Your task to perform on an android device: change notifications settings Image 0: 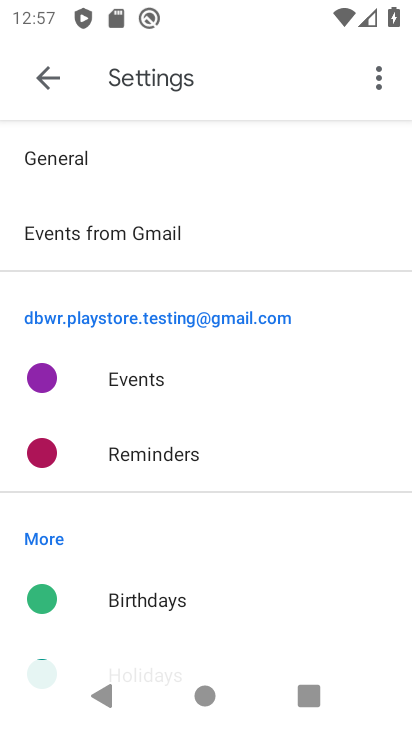
Step 0: press home button
Your task to perform on an android device: change notifications settings Image 1: 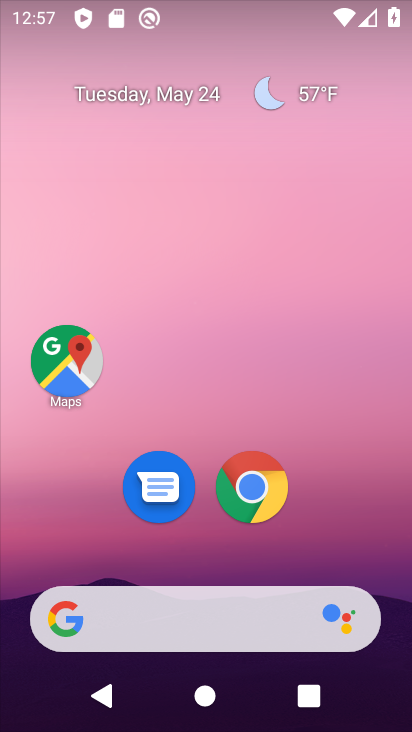
Step 1: drag from (218, 724) to (226, 120)
Your task to perform on an android device: change notifications settings Image 2: 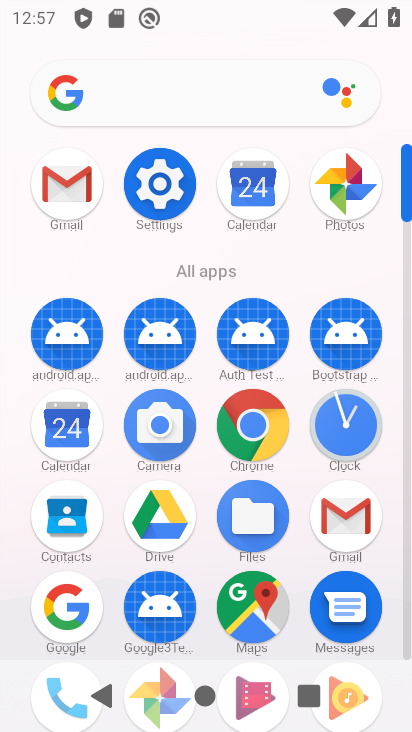
Step 2: click (171, 177)
Your task to perform on an android device: change notifications settings Image 3: 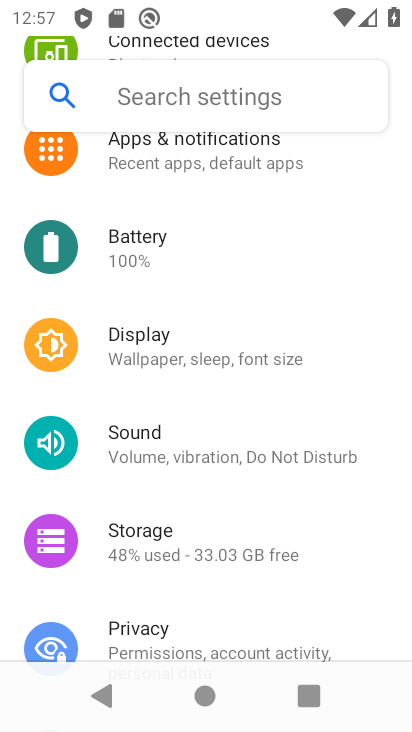
Step 3: click (165, 147)
Your task to perform on an android device: change notifications settings Image 4: 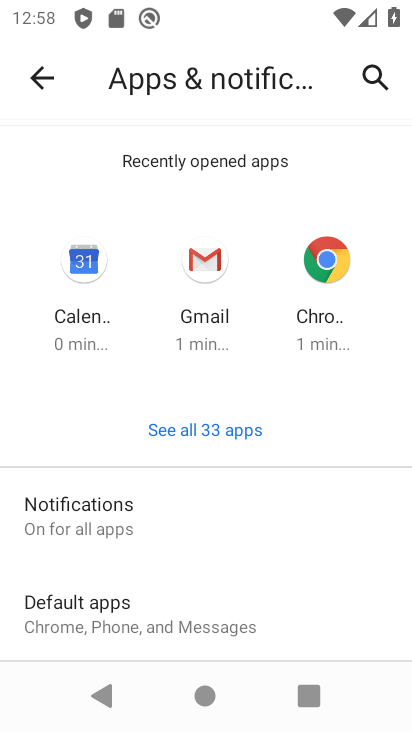
Step 4: click (90, 505)
Your task to perform on an android device: change notifications settings Image 5: 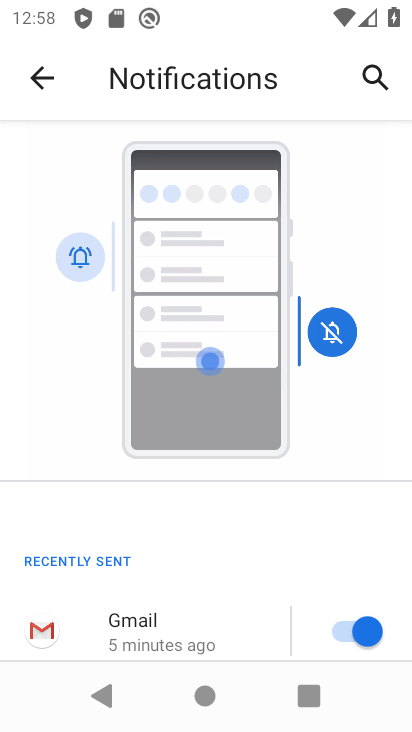
Step 5: task complete